Your task to perform on an android device: change keyboard looks Image 0: 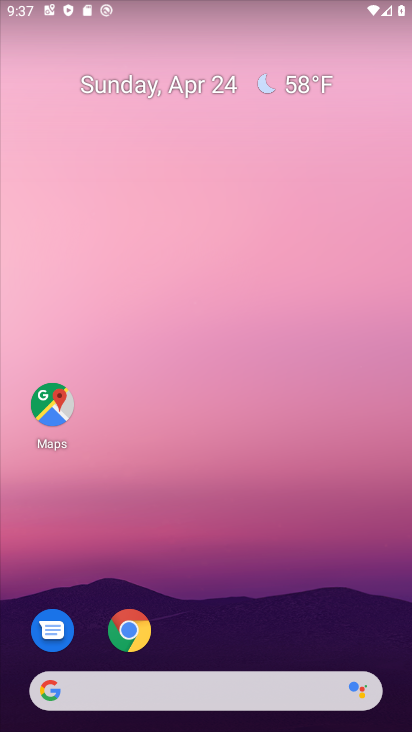
Step 0: drag from (197, 562) to (167, 112)
Your task to perform on an android device: change keyboard looks Image 1: 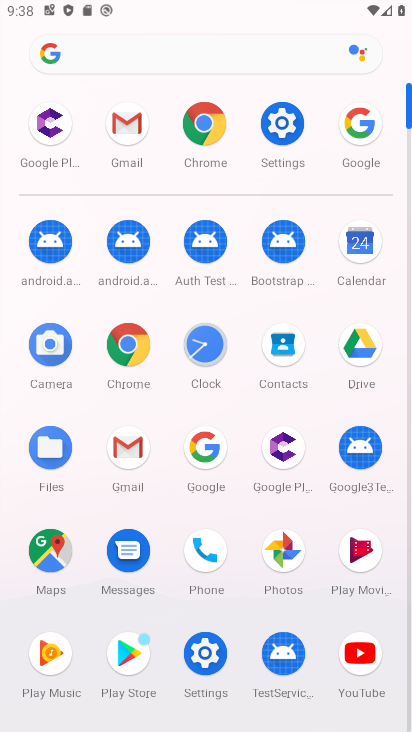
Step 1: click (284, 155)
Your task to perform on an android device: change keyboard looks Image 2: 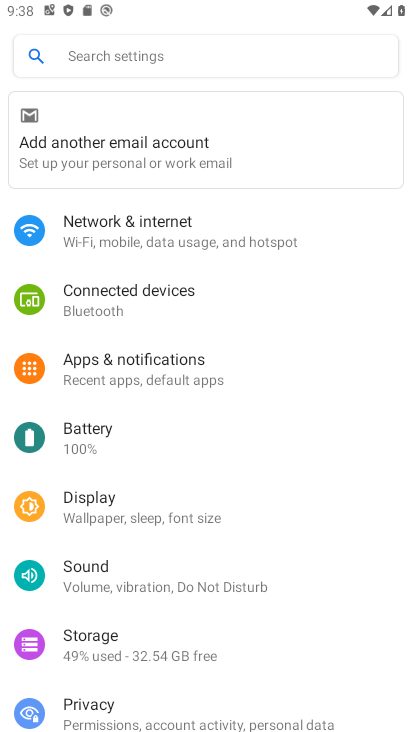
Step 2: drag from (228, 540) to (248, 356)
Your task to perform on an android device: change keyboard looks Image 3: 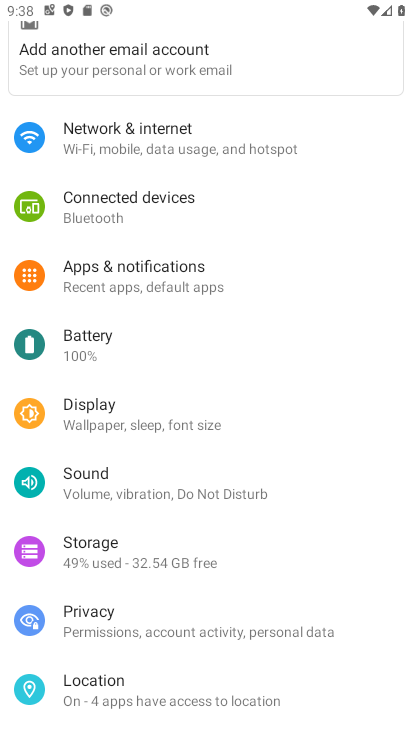
Step 3: drag from (221, 567) to (250, 362)
Your task to perform on an android device: change keyboard looks Image 4: 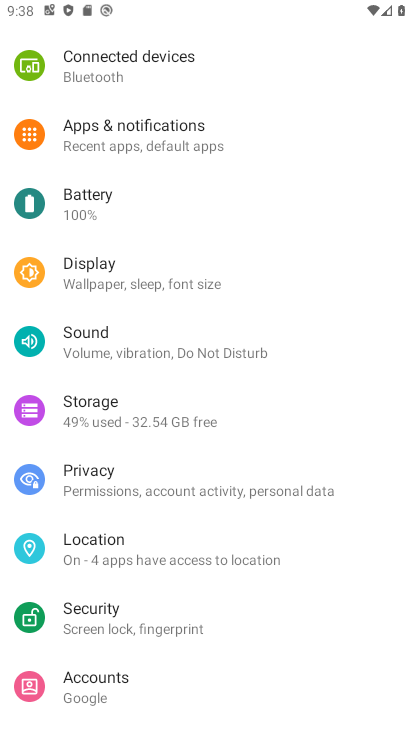
Step 4: drag from (138, 520) to (261, 201)
Your task to perform on an android device: change keyboard looks Image 5: 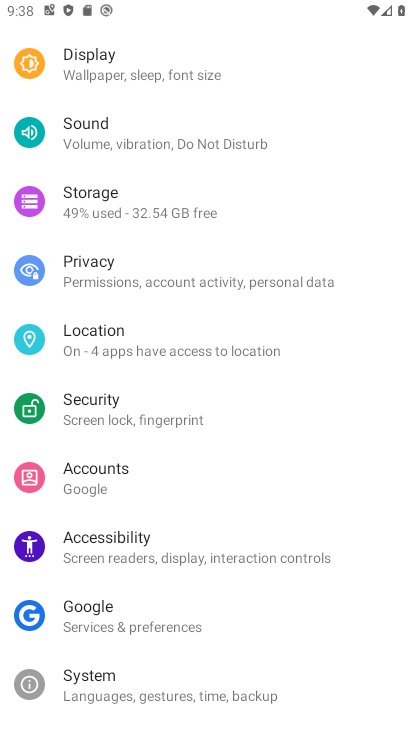
Step 5: drag from (291, 301) to (311, 228)
Your task to perform on an android device: change keyboard looks Image 6: 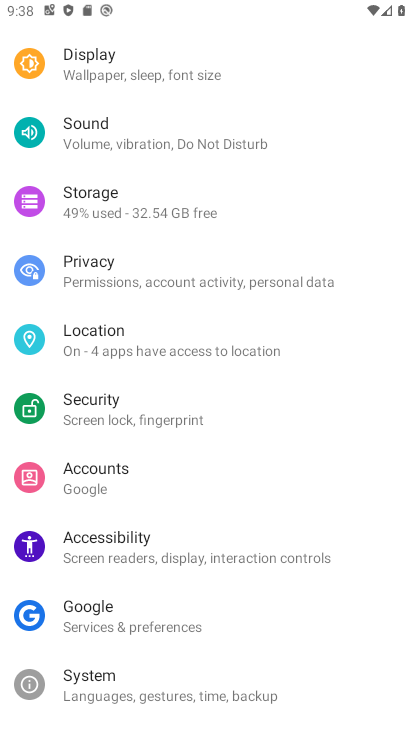
Step 6: click (228, 705)
Your task to perform on an android device: change keyboard looks Image 7: 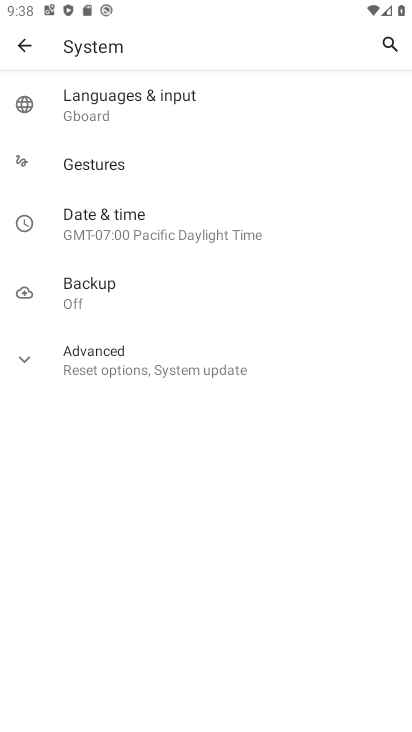
Step 7: click (199, 111)
Your task to perform on an android device: change keyboard looks Image 8: 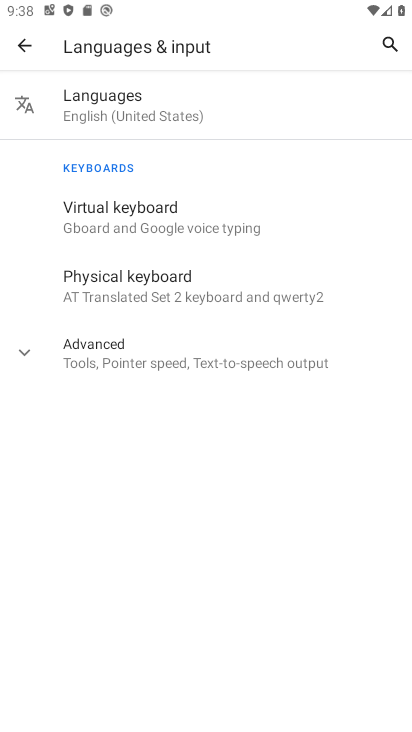
Step 8: click (208, 213)
Your task to perform on an android device: change keyboard looks Image 9: 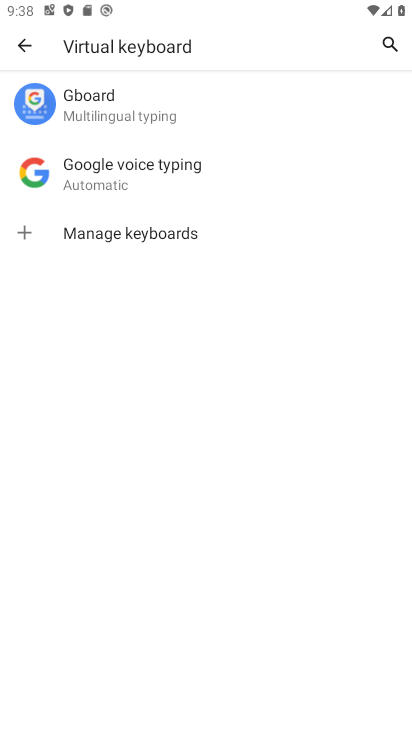
Step 9: click (192, 113)
Your task to perform on an android device: change keyboard looks Image 10: 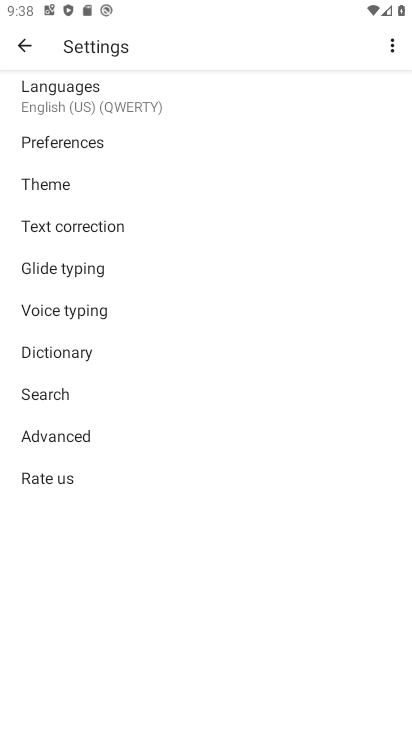
Step 10: click (46, 188)
Your task to perform on an android device: change keyboard looks Image 11: 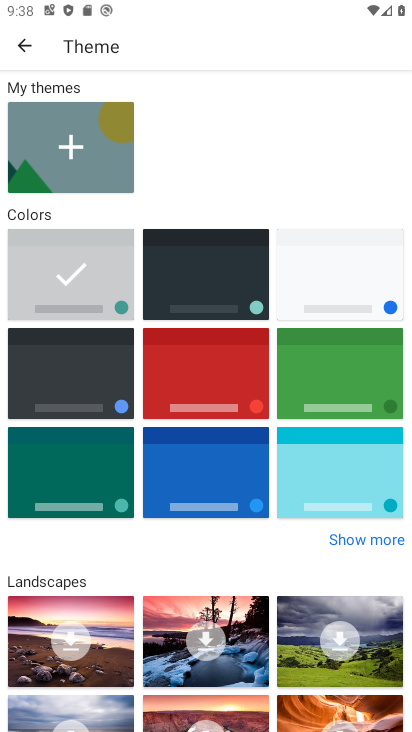
Step 11: click (240, 285)
Your task to perform on an android device: change keyboard looks Image 12: 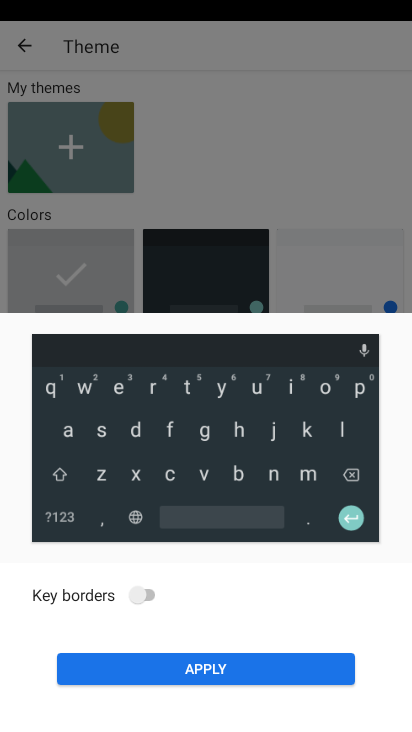
Step 12: click (293, 672)
Your task to perform on an android device: change keyboard looks Image 13: 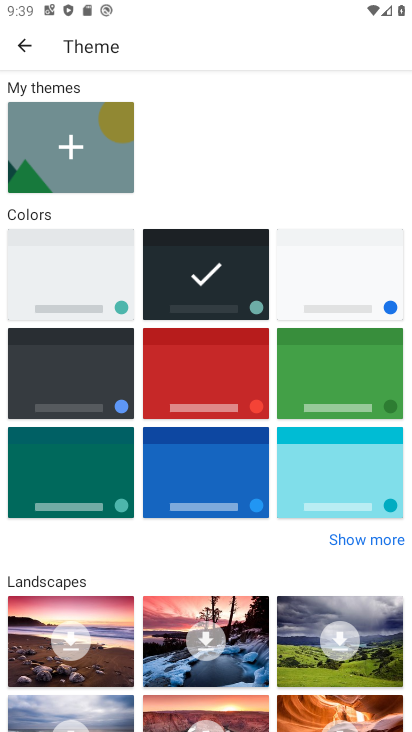
Step 13: task complete